Your task to perform on an android device: turn on sleep mode Image 0: 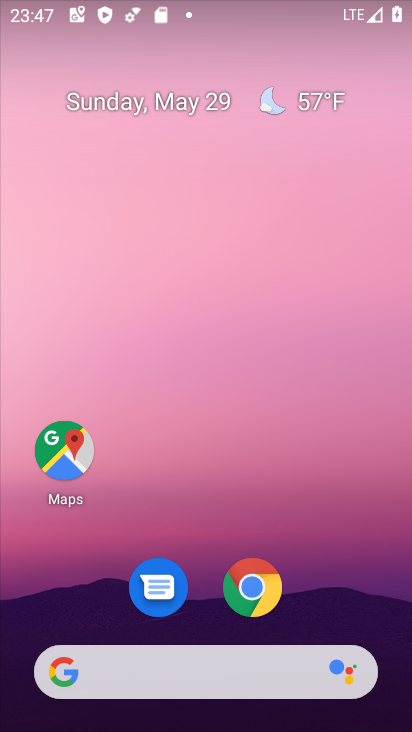
Step 0: drag from (364, 622) to (196, 134)
Your task to perform on an android device: turn on sleep mode Image 1: 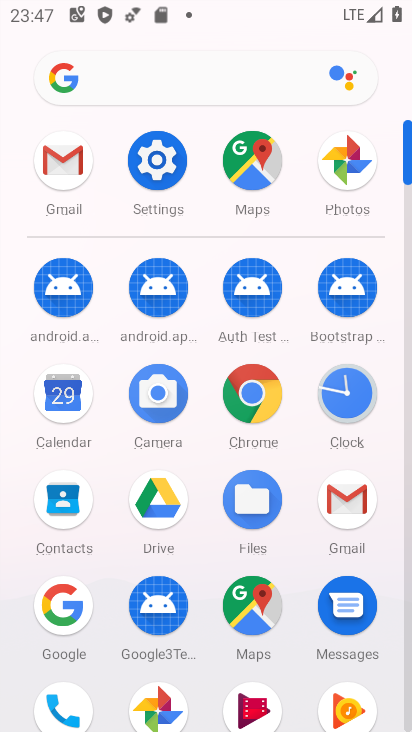
Step 1: click (174, 150)
Your task to perform on an android device: turn on sleep mode Image 2: 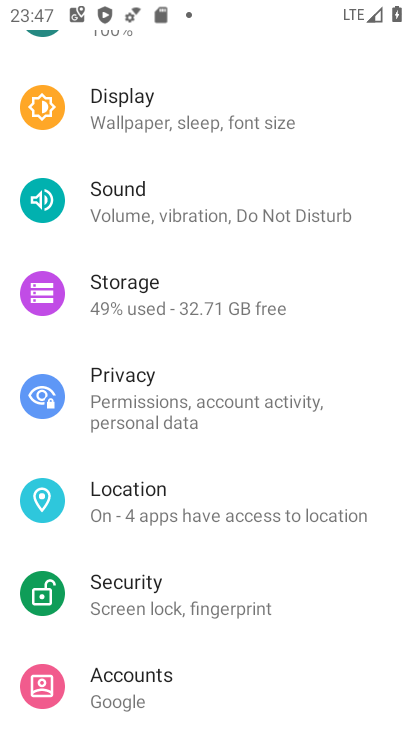
Step 2: drag from (190, 168) to (197, 508)
Your task to perform on an android device: turn on sleep mode Image 3: 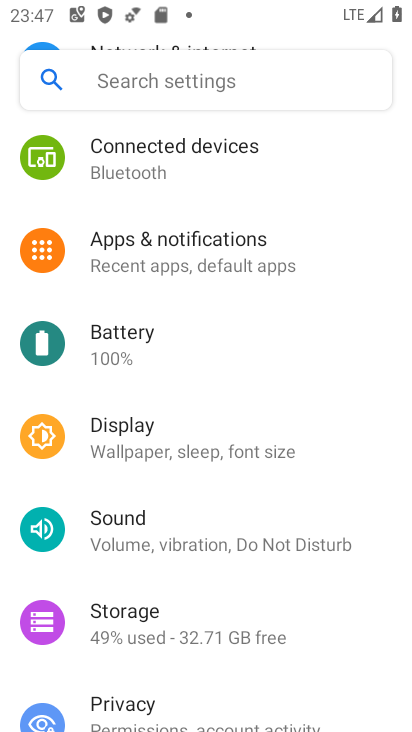
Step 3: click (247, 445)
Your task to perform on an android device: turn on sleep mode Image 4: 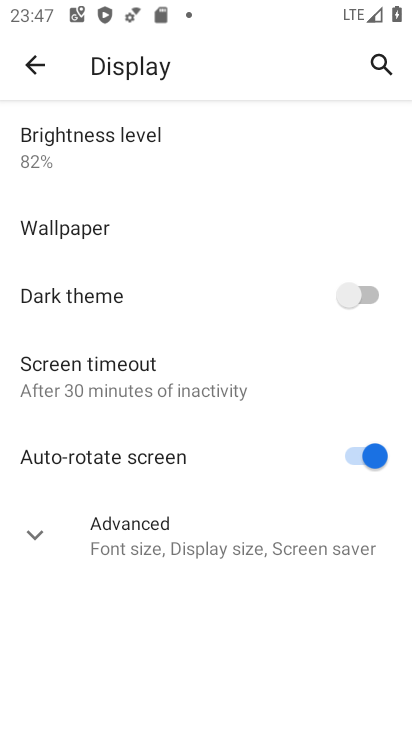
Step 4: click (265, 533)
Your task to perform on an android device: turn on sleep mode Image 5: 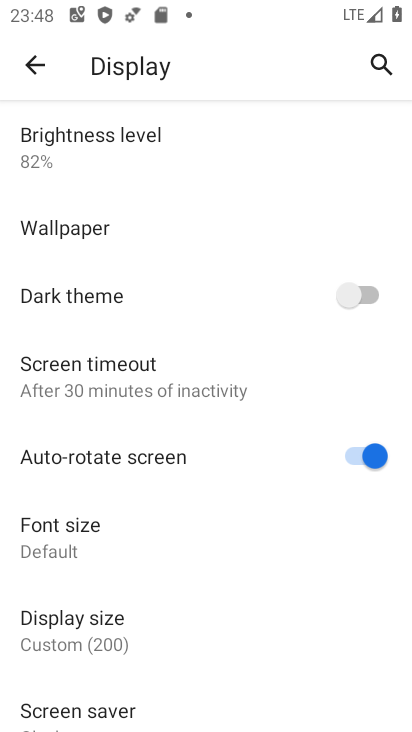
Step 5: task complete